Your task to perform on an android device: move a message to another label in the gmail app Image 0: 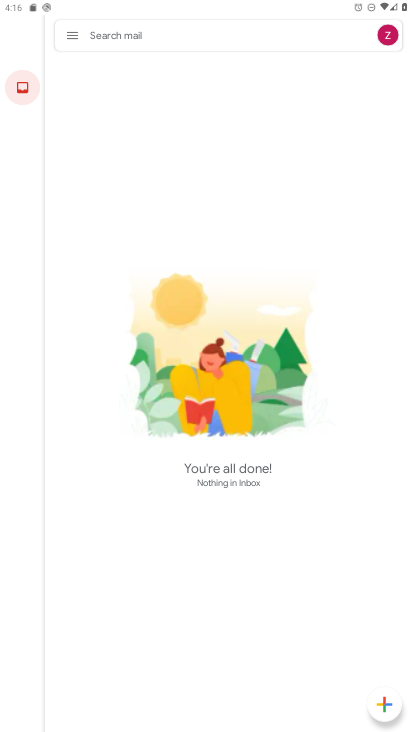
Step 0: press home button
Your task to perform on an android device: move a message to another label in the gmail app Image 1: 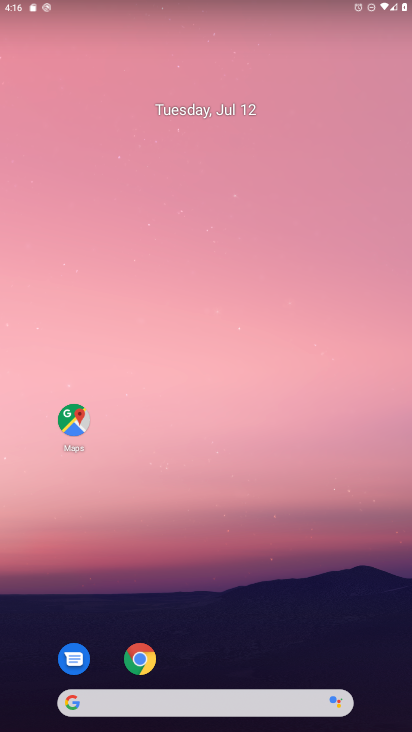
Step 1: drag from (185, 584) to (174, 47)
Your task to perform on an android device: move a message to another label in the gmail app Image 2: 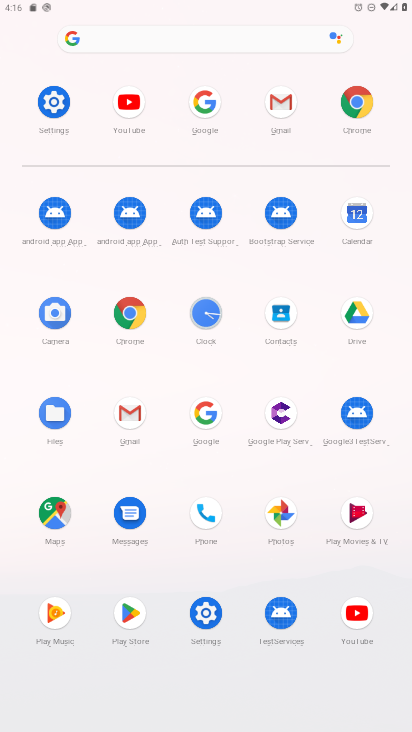
Step 2: click (277, 91)
Your task to perform on an android device: move a message to another label in the gmail app Image 3: 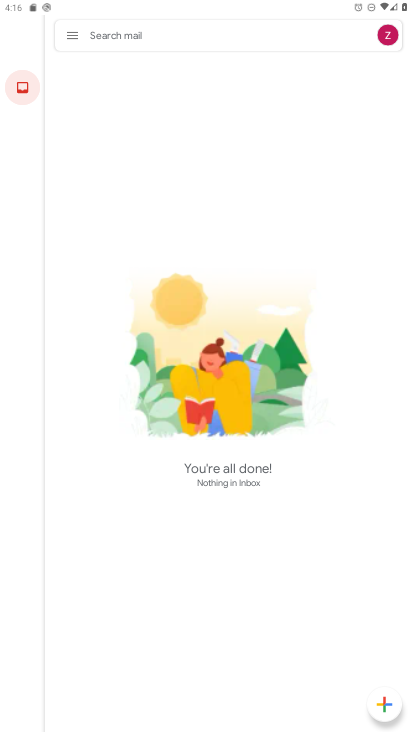
Step 3: task complete